Your task to perform on an android device: open sync settings in chrome Image 0: 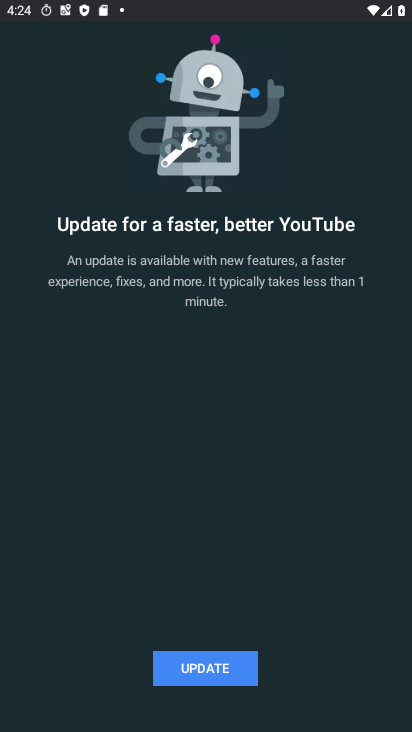
Step 0: press back button
Your task to perform on an android device: open sync settings in chrome Image 1: 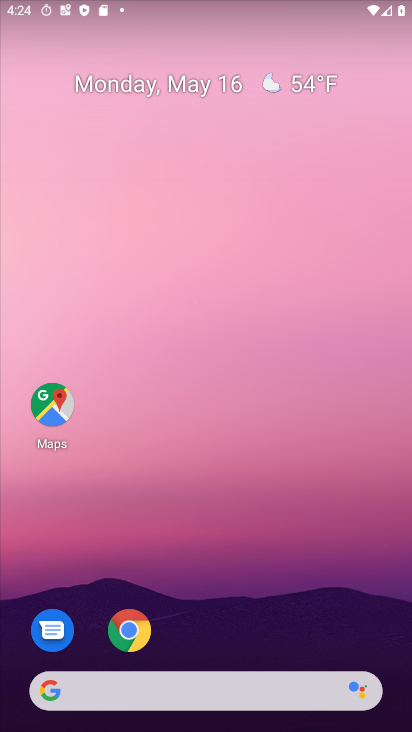
Step 1: drag from (221, 630) to (228, 197)
Your task to perform on an android device: open sync settings in chrome Image 2: 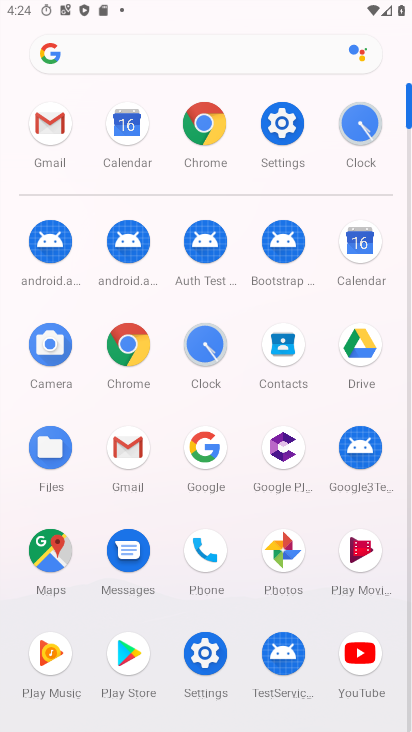
Step 2: click (205, 127)
Your task to perform on an android device: open sync settings in chrome Image 3: 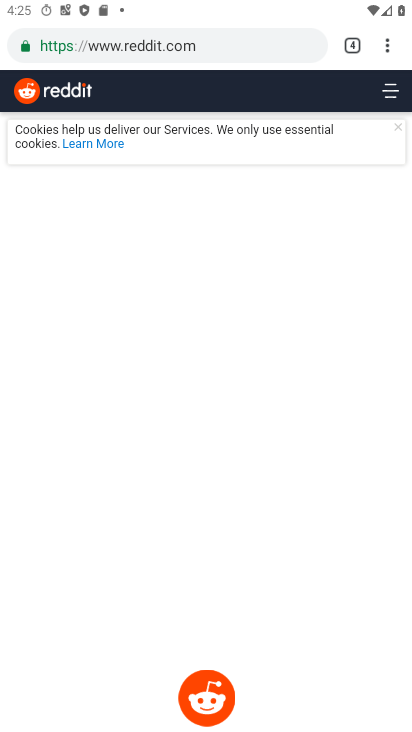
Step 3: click (391, 45)
Your task to perform on an android device: open sync settings in chrome Image 4: 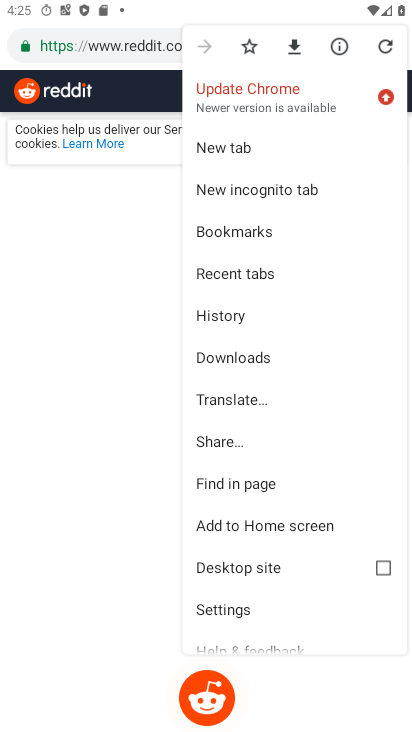
Step 4: click (306, 615)
Your task to perform on an android device: open sync settings in chrome Image 5: 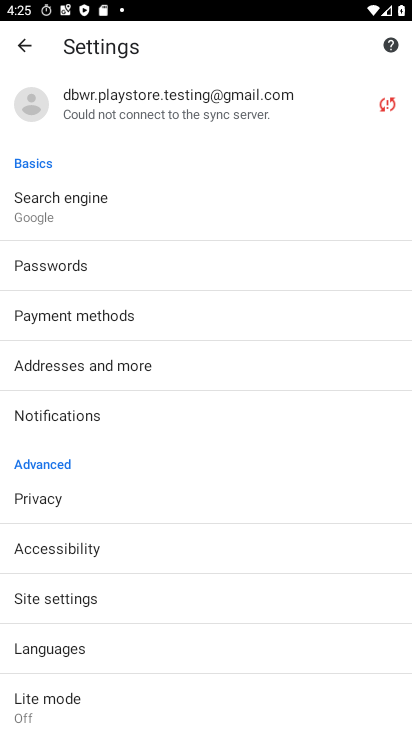
Step 5: click (238, 98)
Your task to perform on an android device: open sync settings in chrome Image 6: 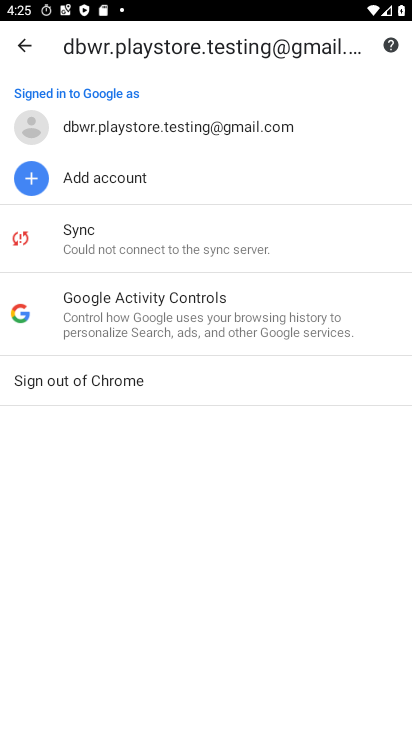
Step 6: click (255, 246)
Your task to perform on an android device: open sync settings in chrome Image 7: 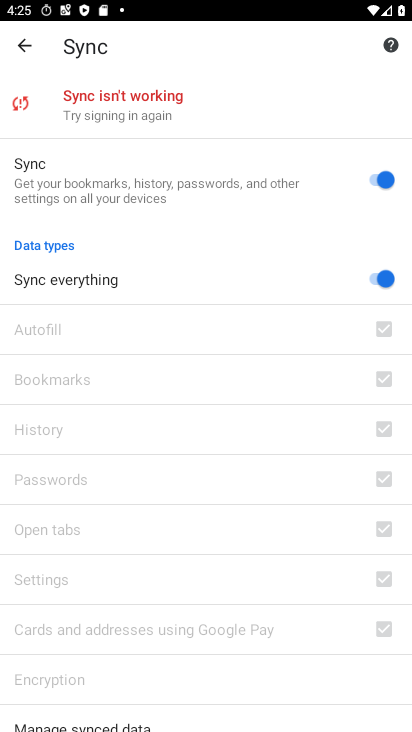
Step 7: task complete